Your task to perform on an android device: set the timer Image 0: 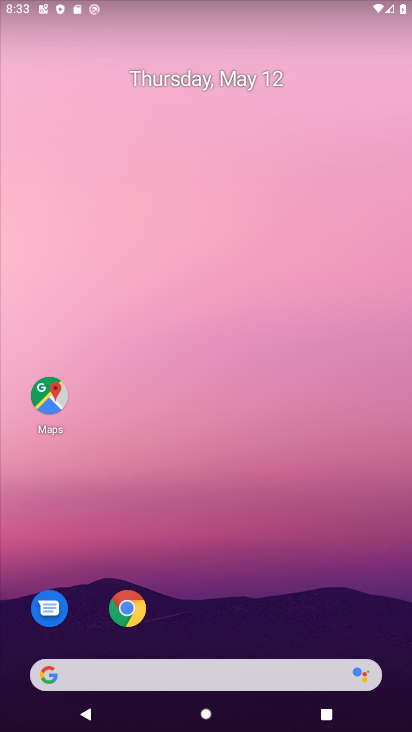
Step 0: drag from (213, 647) to (297, 170)
Your task to perform on an android device: set the timer Image 1: 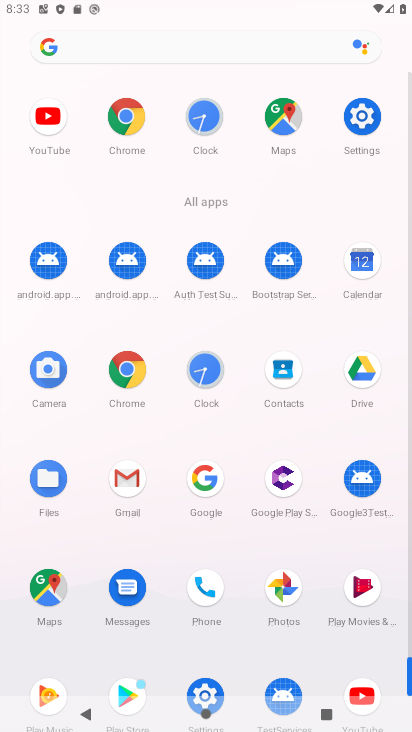
Step 1: click (195, 376)
Your task to perform on an android device: set the timer Image 2: 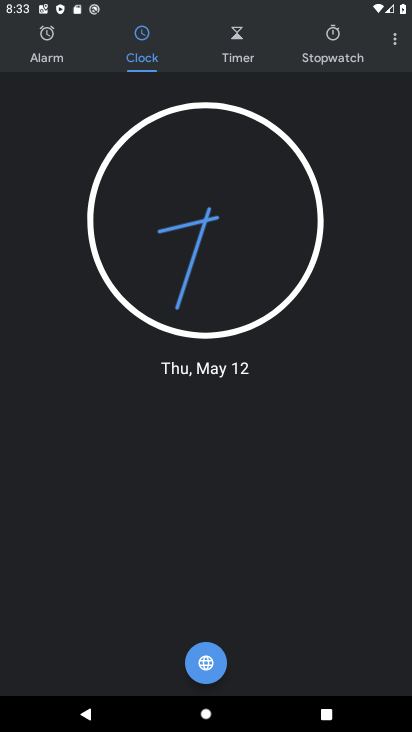
Step 2: click (250, 33)
Your task to perform on an android device: set the timer Image 3: 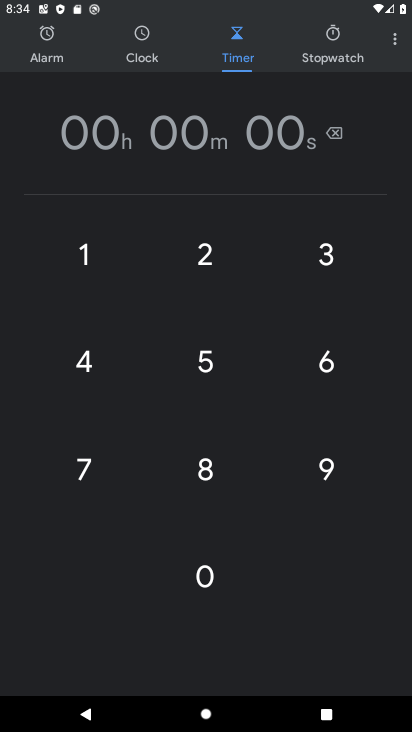
Step 3: click (121, 269)
Your task to perform on an android device: set the timer Image 4: 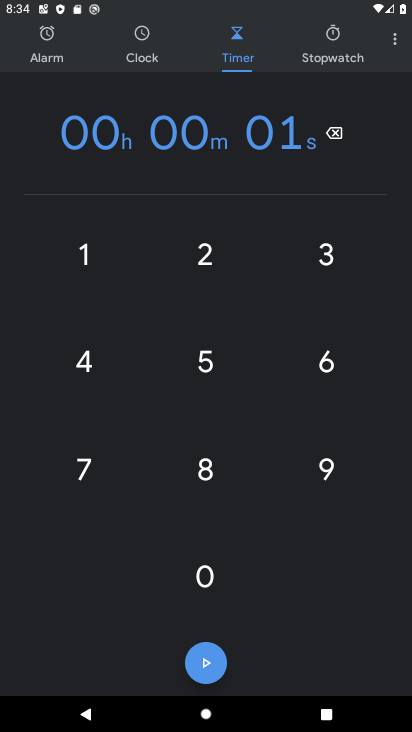
Step 4: click (121, 269)
Your task to perform on an android device: set the timer Image 5: 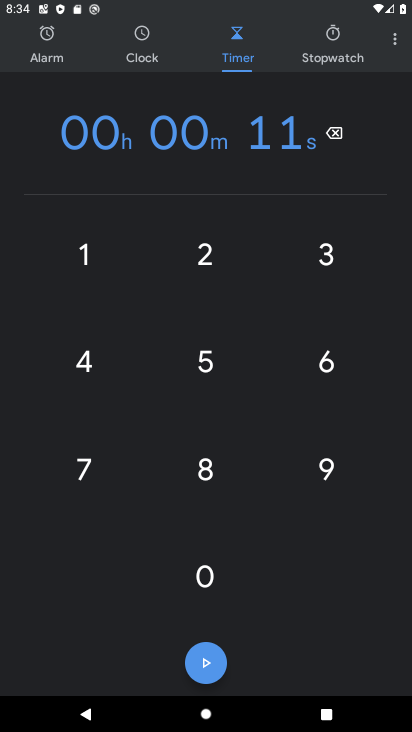
Step 5: click (202, 664)
Your task to perform on an android device: set the timer Image 6: 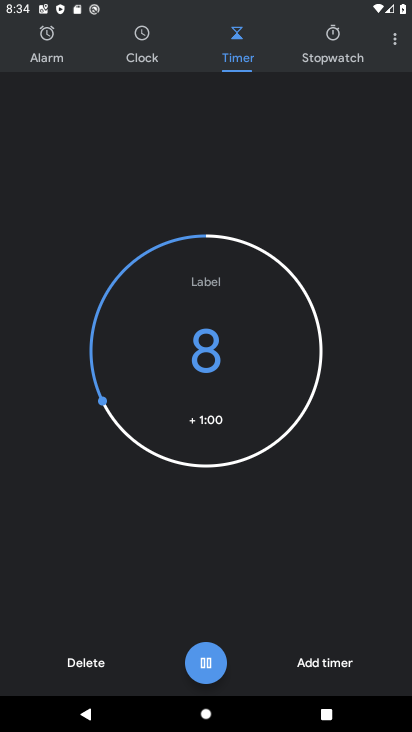
Step 6: task complete